Your task to perform on an android device: Show me productivity apps on the Play Store Image 0: 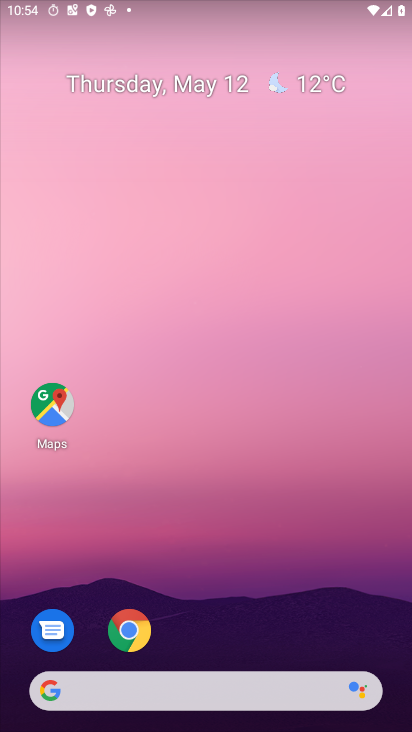
Step 0: drag from (217, 681) to (246, 445)
Your task to perform on an android device: Show me productivity apps on the Play Store Image 1: 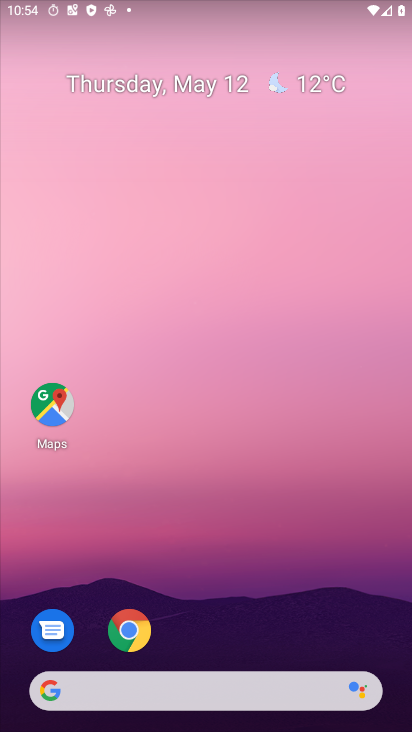
Step 1: drag from (215, 693) to (243, 414)
Your task to perform on an android device: Show me productivity apps on the Play Store Image 2: 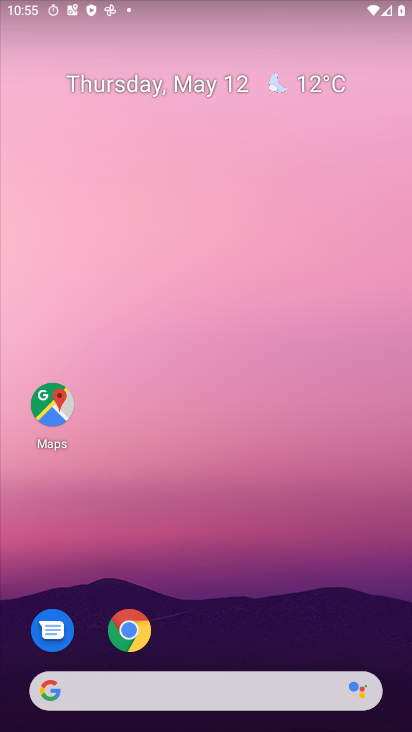
Step 2: drag from (221, 694) to (186, 175)
Your task to perform on an android device: Show me productivity apps on the Play Store Image 3: 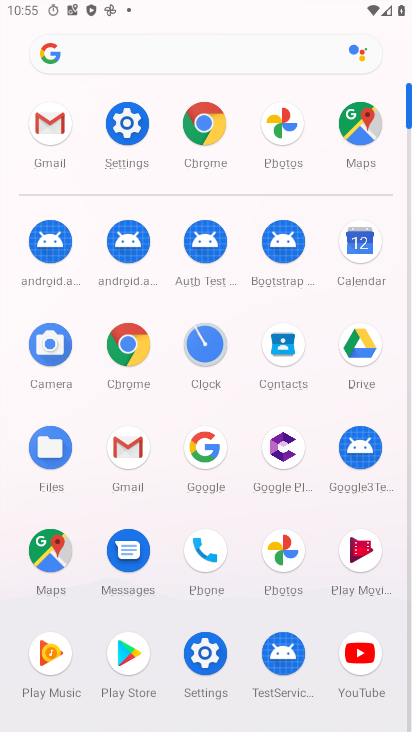
Step 3: click (132, 658)
Your task to perform on an android device: Show me productivity apps on the Play Store Image 4: 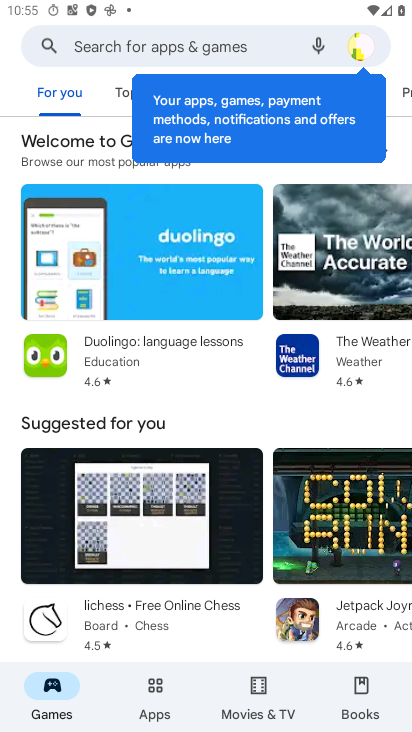
Step 4: click (132, 658)
Your task to perform on an android device: Show me productivity apps on the Play Store Image 5: 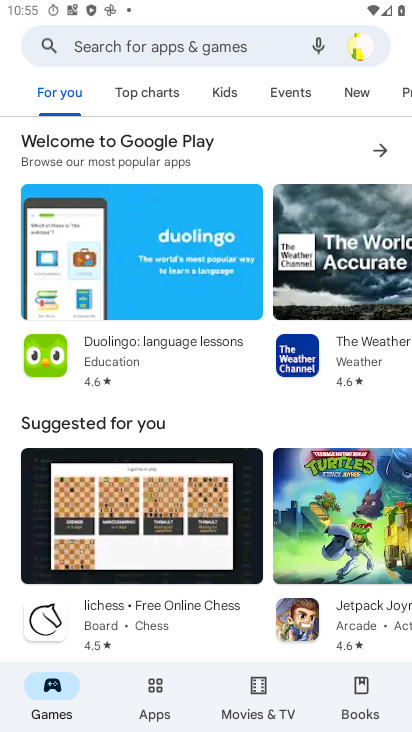
Step 5: click (161, 704)
Your task to perform on an android device: Show me productivity apps on the Play Store Image 6: 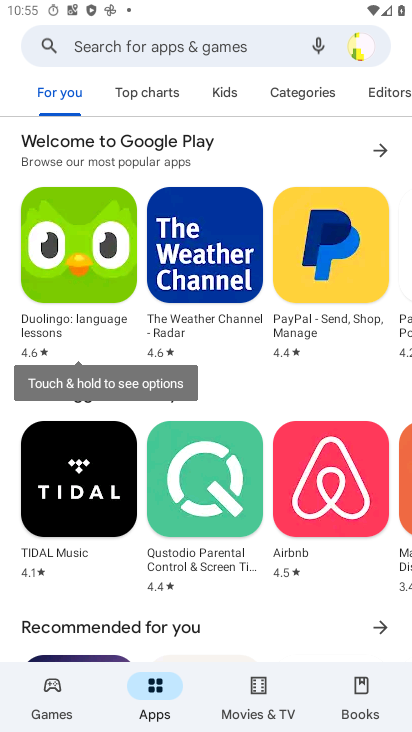
Step 6: click (302, 93)
Your task to perform on an android device: Show me productivity apps on the Play Store Image 7: 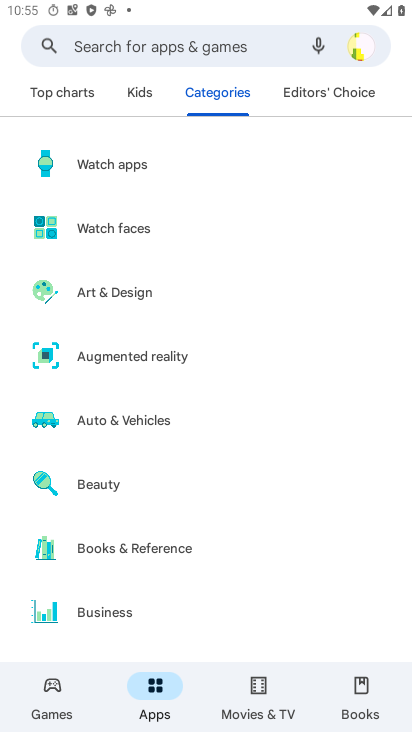
Step 7: drag from (217, 543) to (163, 8)
Your task to perform on an android device: Show me productivity apps on the Play Store Image 8: 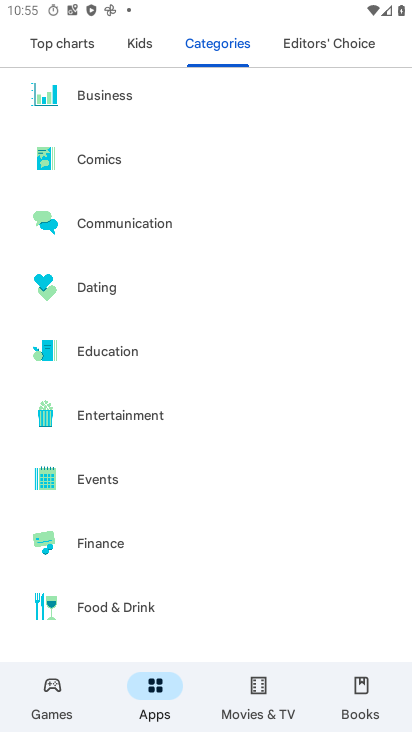
Step 8: drag from (215, 398) to (186, 3)
Your task to perform on an android device: Show me productivity apps on the Play Store Image 9: 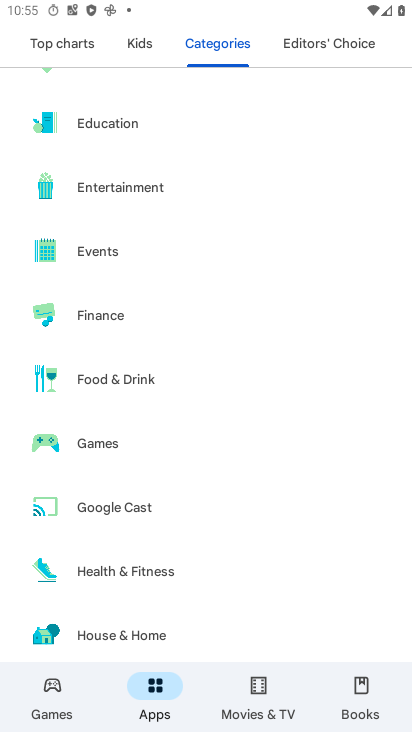
Step 9: drag from (228, 525) to (169, 35)
Your task to perform on an android device: Show me productivity apps on the Play Store Image 10: 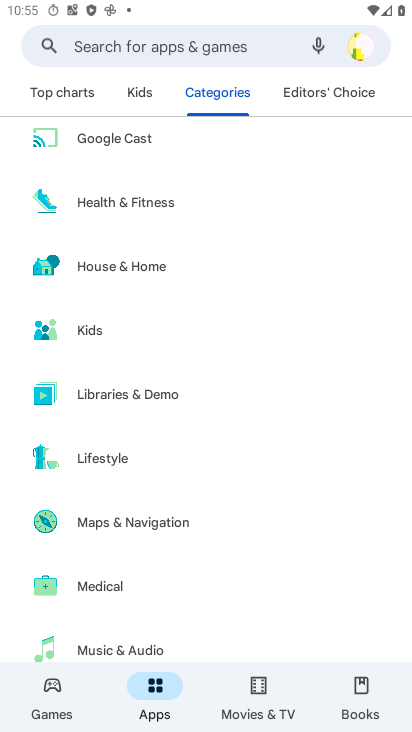
Step 10: drag from (180, 559) to (242, 45)
Your task to perform on an android device: Show me productivity apps on the Play Store Image 11: 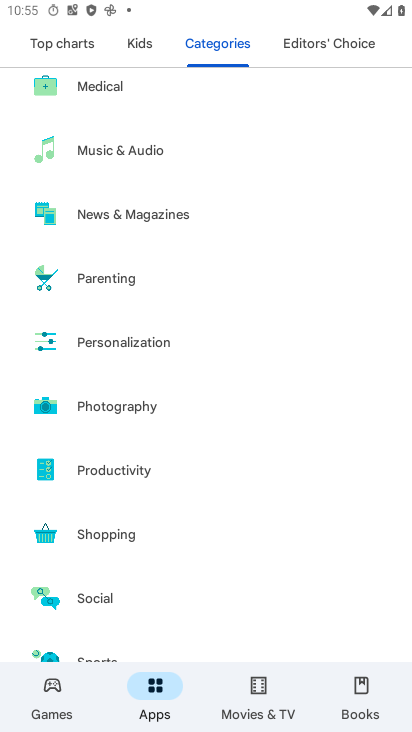
Step 11: click (98, 474)
Your task to perform on an android device: Show me productivity apps on the Play Store Image 12: 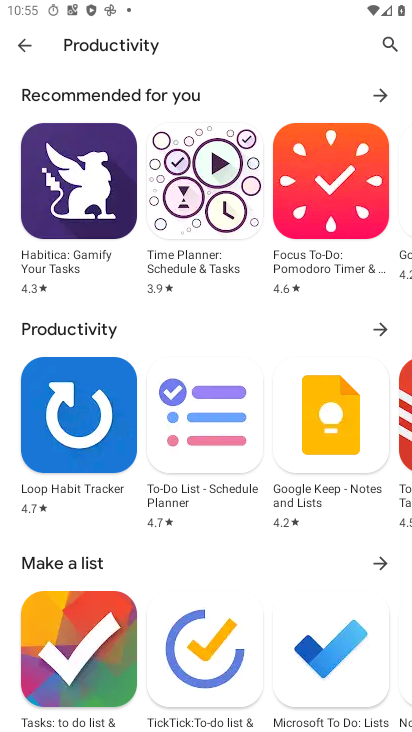
Step 12: task complete